Your task to perform on an android device: Open calendar and show me the fourth week of next month Image 0: 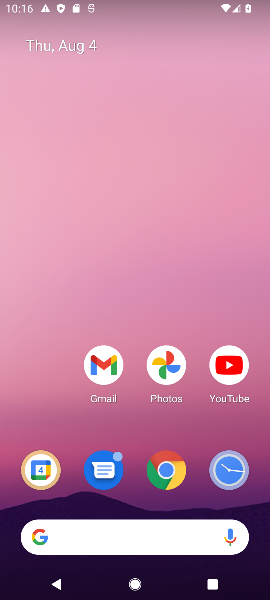
Step 0: click (38, 470)
Your task to perform on an android device: Open calendar and show me the fourth week of next month Image 1: 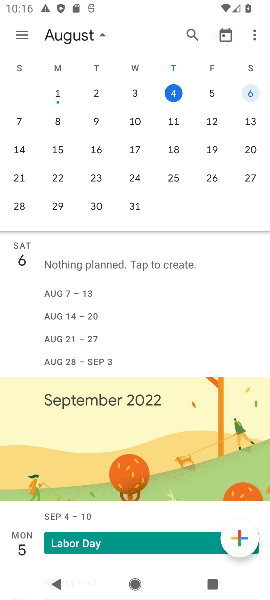
Step 1: drag from (261, 159) to (119, 181)
Your task to perform on an android device: Open calendar and show me the fourth week of next month Image 2: 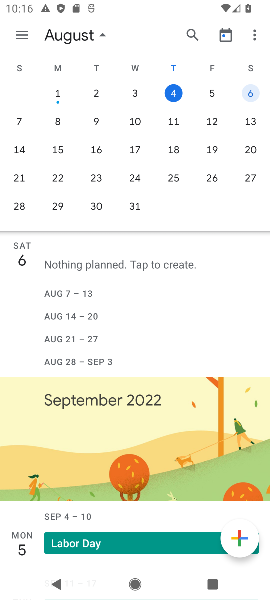
Step 2: drag from (263, 163) to (94, 165)
Your task to perform on an android device: Open calendar and show me the fourth week of next month Image 3: 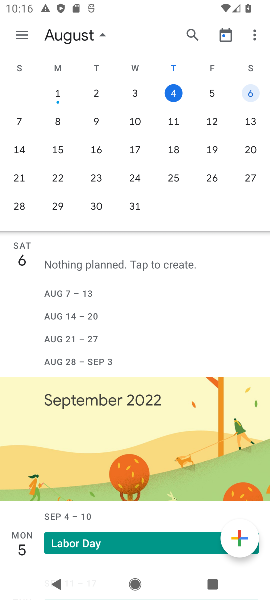
Step 3: drag from (224, 155) to (4, 185)
Your task to perform on an android device: Open calendar and show me the fourth week of next month Image 4: 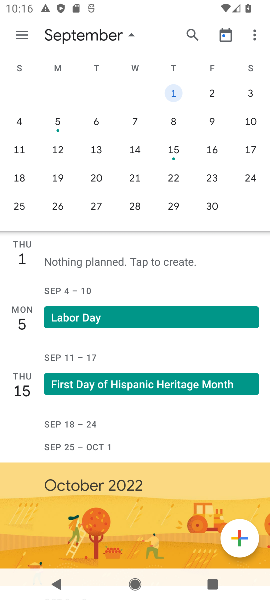
Step 4: click (20, 182)
Your task to perform on an android device: Open calendar and show me the fourth week of next month Image 5: 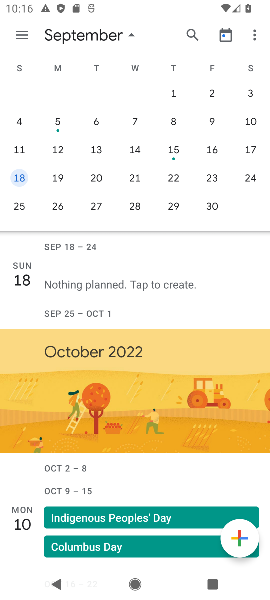
Step 5: task complete